Your task to perform on an android device: open app "Grab" (install if not already installed) Image 0: 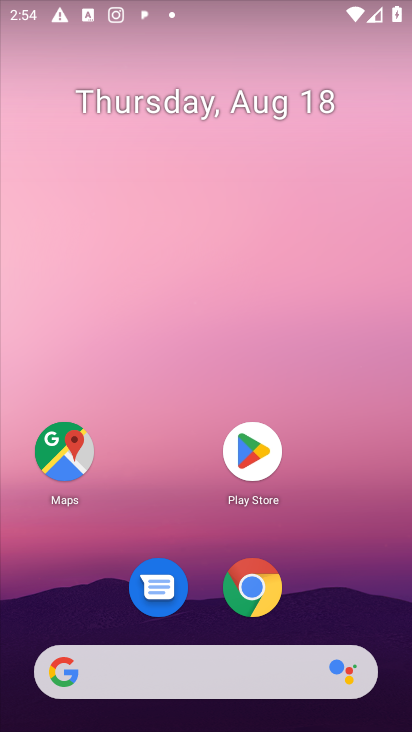
Step 0: click (240, 449)
Your task to perform on an android device: open app "Grab" (install if not already installed) Image 1: 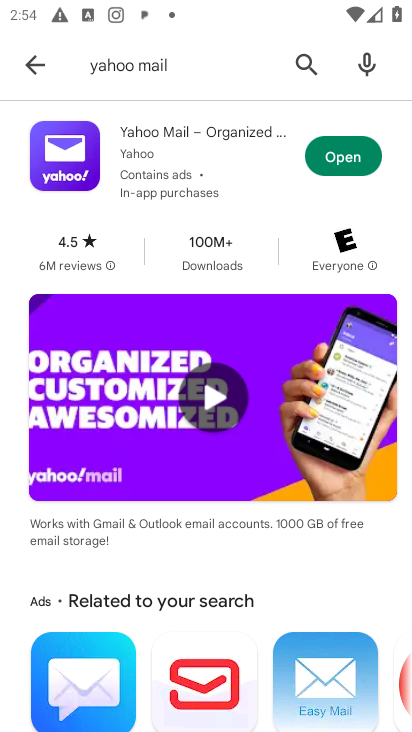
Step 1: click (307, 67)
Your task to perform on an android device: open app "Grab" (install if not already installed) Image 2: 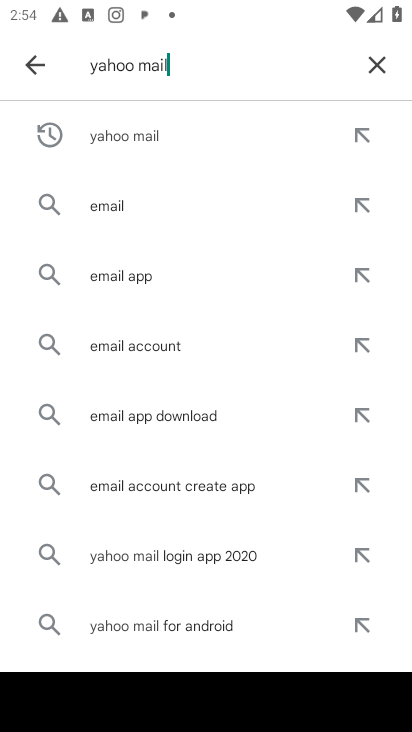
Step 2: click (372, 63)
Your task to perform on an android device: open app "Grab" (install if not already installed) Image 3: 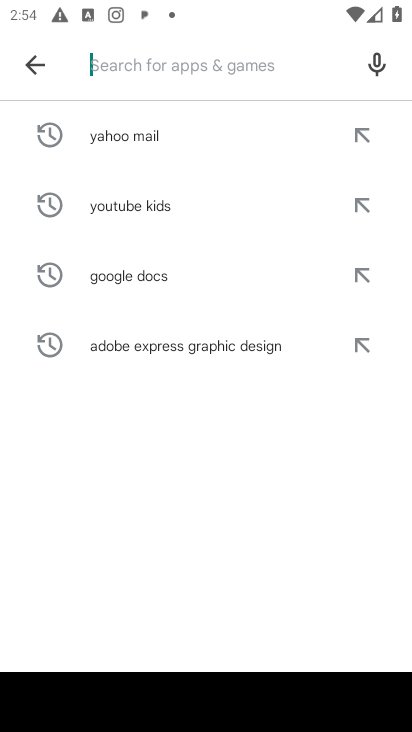
Step 3: type "Grab"
Your task to perform on an android device: open app "Grab" (install if not already installed) Image 4: 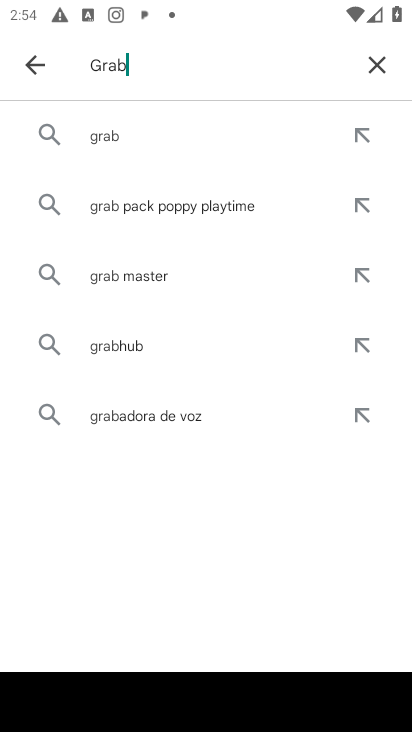
Step 4: click (104, 137)
Your task to perform on an android device: open app "Grab" (install if not already installed) Image 5: 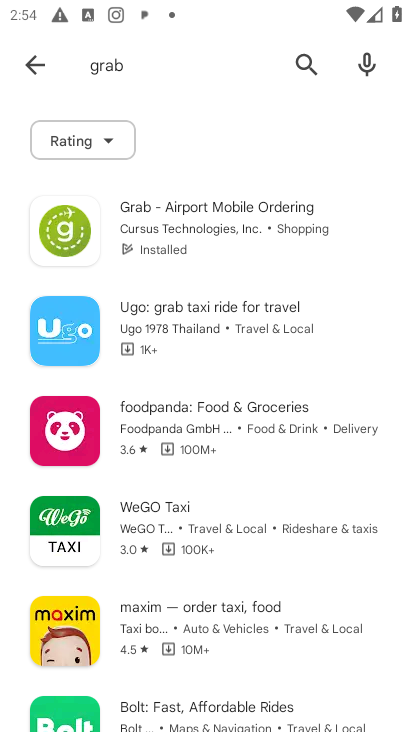
Step 5: click (144, 219)
Your task to perform on an android device: open app "Grab" (install if not already installed) Image 6: 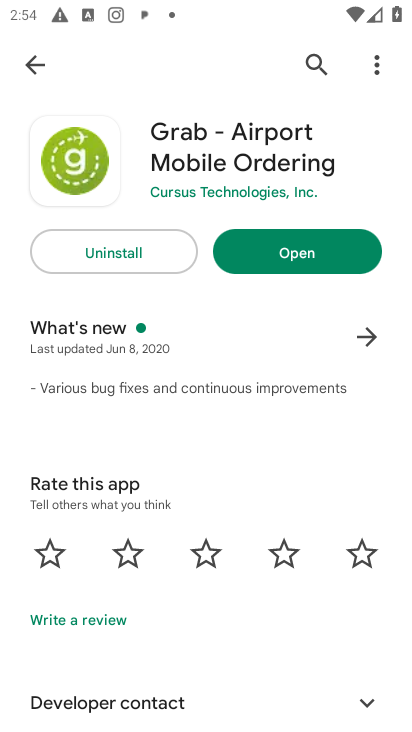
Step 6: click (304, 257)
Your task to perform on an android device: open app "Grab" (install if not already installed) Image 7: 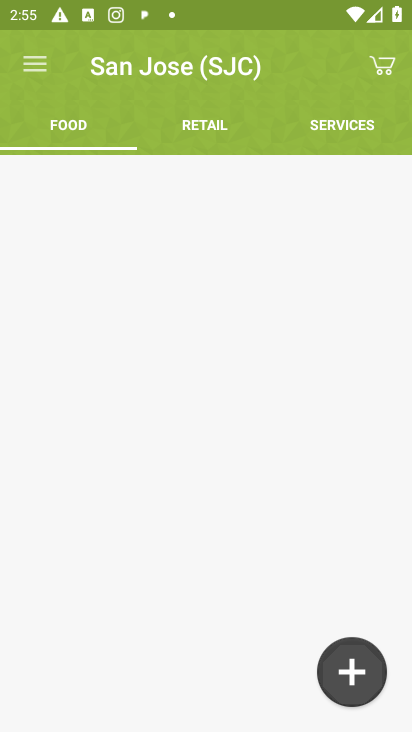
Step 7: task complete